Your task to perform on an android device: Check the news Image 0: 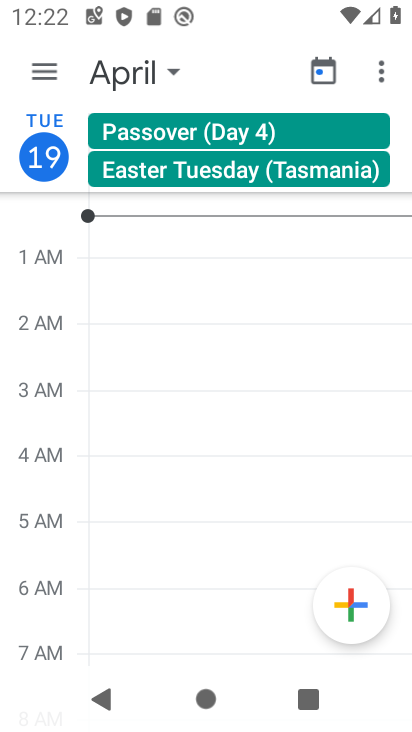
Step 0: press home button
Your task to perform on an android device: Check the news Image 1: 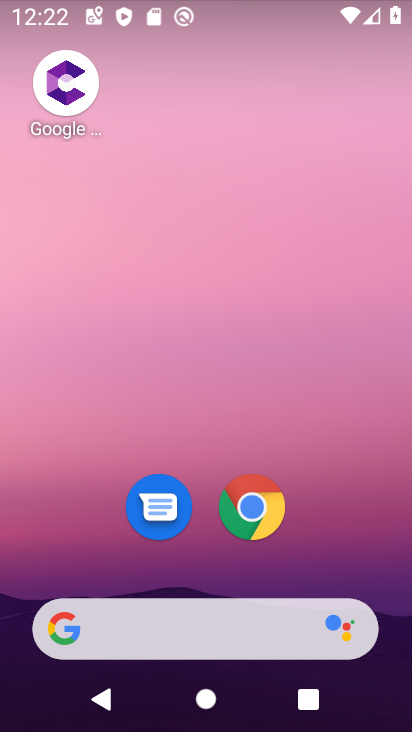
Step 1: drag from (203, 570) to (199, 63)
Your task to perform on an android device: Check the news Image 2: 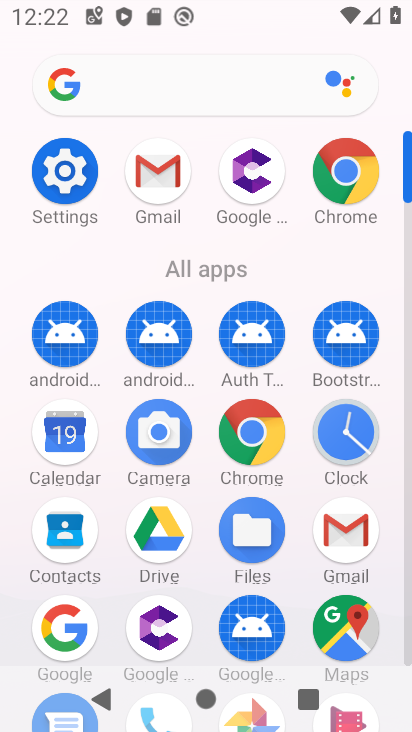
Step 2: click (63, 637)
Your task to perform on an android device: Check the news Image 3: 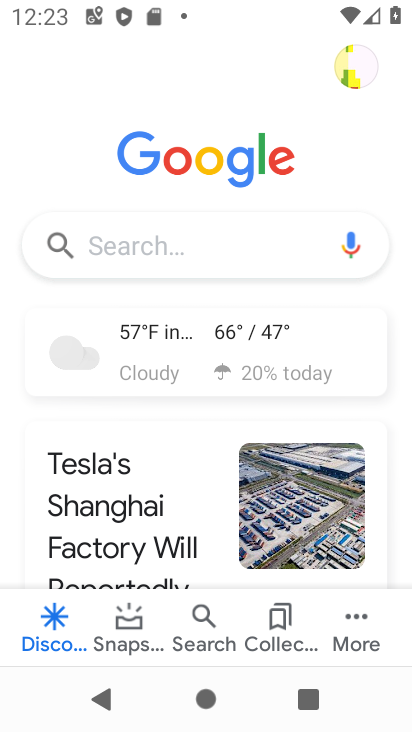
Step 3: task complete